Your task to perform on an android device: What's the weather? Image 0: 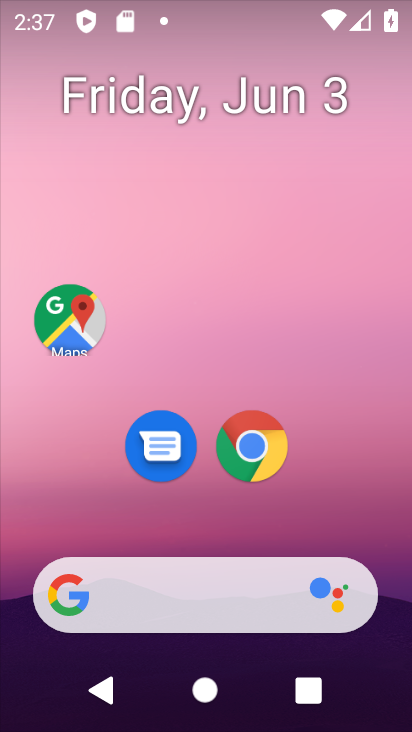
Step 0: click (175, 578)
Your task to perform on an android device: What's the weather? Image 1: 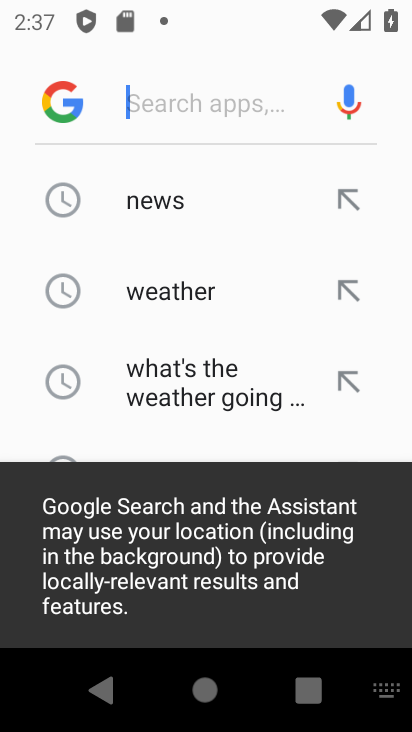
Step 1: click (213, 274)
Your task to perform on an android device: What's the weather? Image 2: 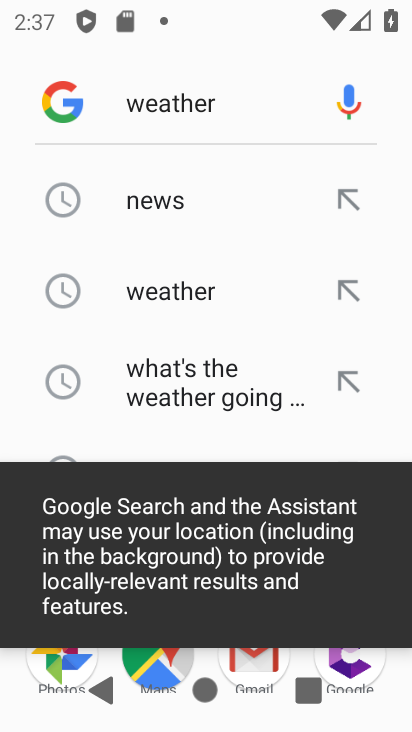
Step 2: task complete